Your task to perform on an android device: Open network settings Image 0: 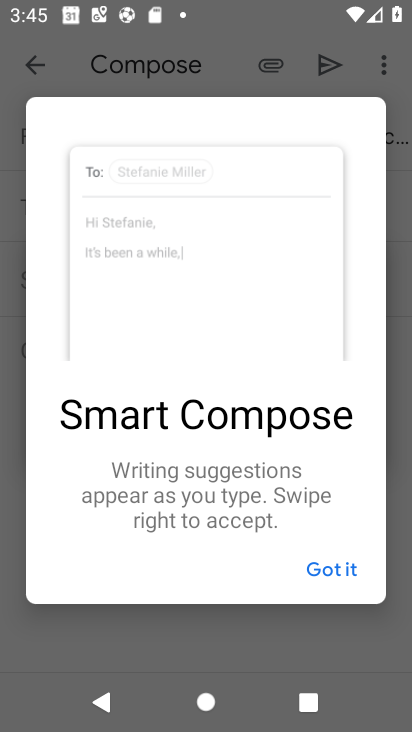
Step 0: press home button
Your task to perform on an android device: Open network settings Image 1: 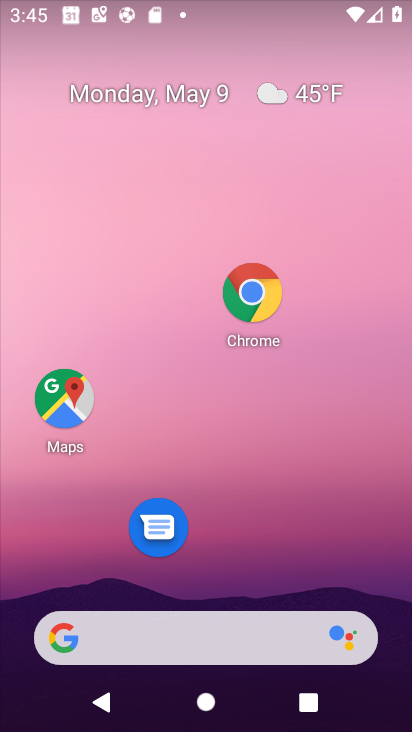
Step 1: click (297, 551)
Your task to perform on an android device: Open network settings Image 2: 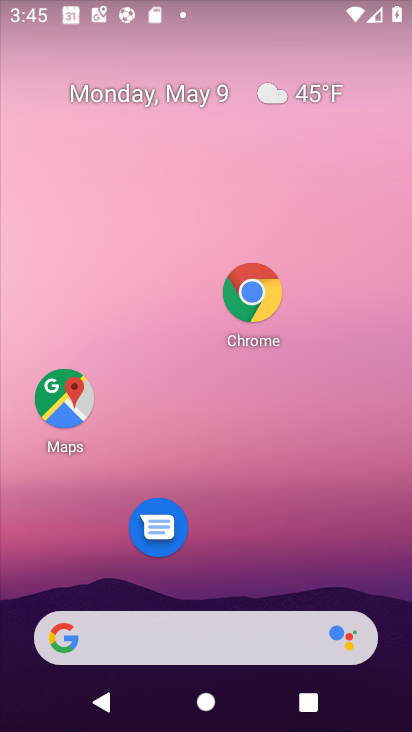
Step 2: drag from (297, 551) to (204, 162)
Your task to perform on an android device: Open network settings Image 3: 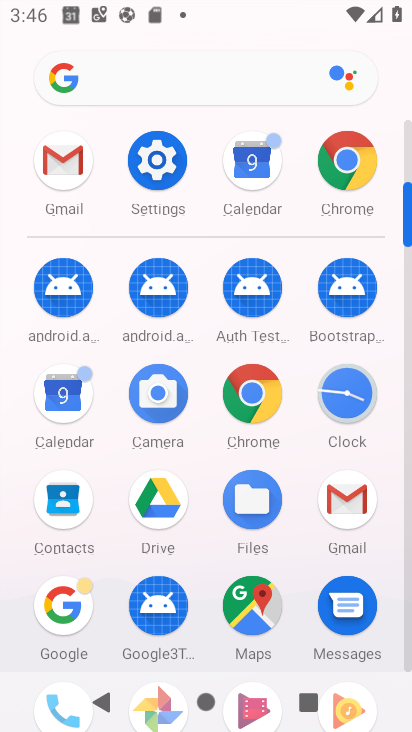
Step 3: click (164, 181)
Your task to perform on an android device: Open network settings Image 4: 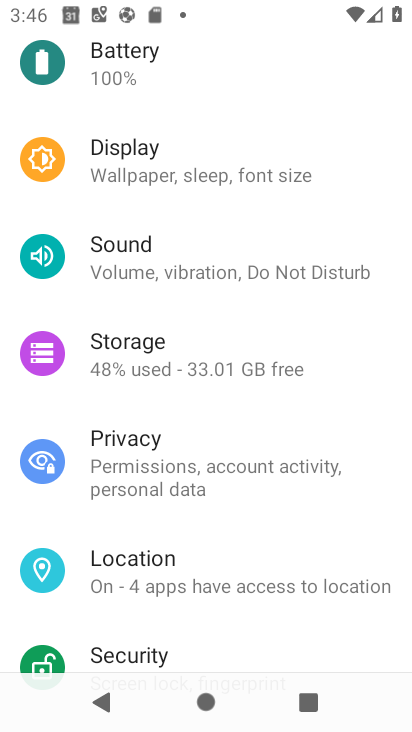
Step 4: drag from (164, 181) to (152, 487)
Your task to perform on an android device: Open network settings Image 5: 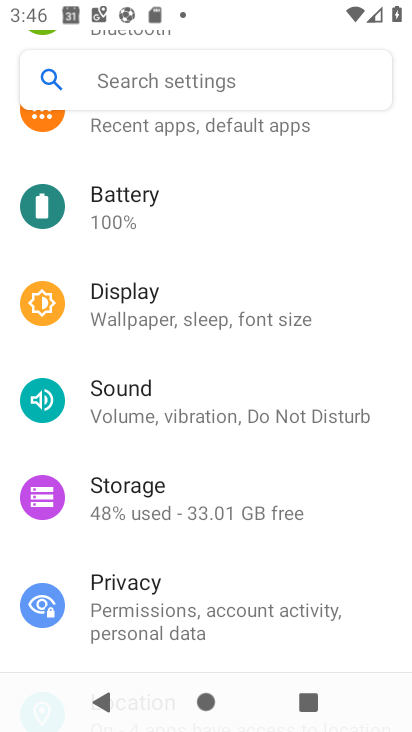
Step 5: drag from (196, 266) to (180, 534)
Your task to perform on an android device: Open network settings Image 6: 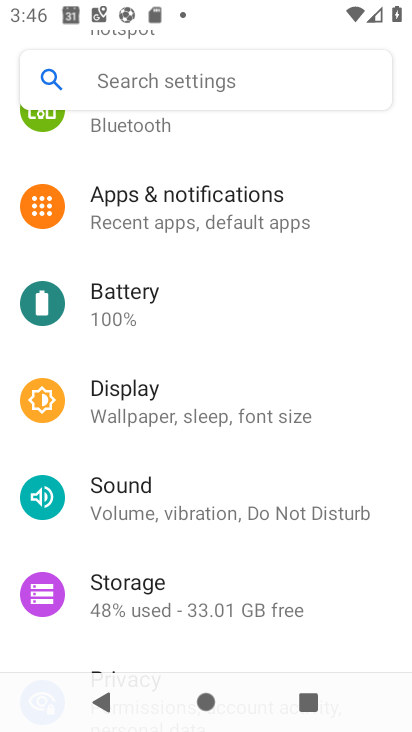
Step 6: drag from (236, 161) to (215, 392)
Your task to perform on an android device: Open network settings Image 7: 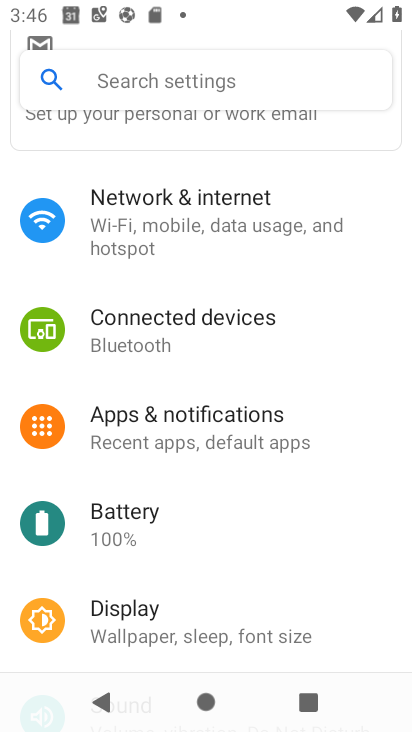
Step 7: click (278, 207)
Your task to perform on an android device: Open network settings Image 8: 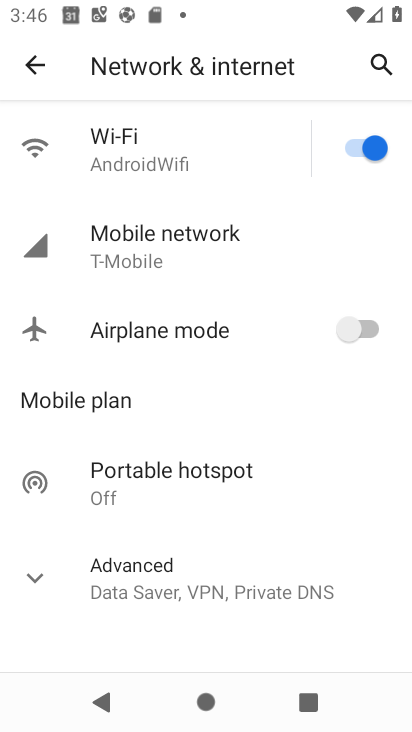
Step 8: click (232, 238)
Your task to perform on an android device: Open network settings Image 9: 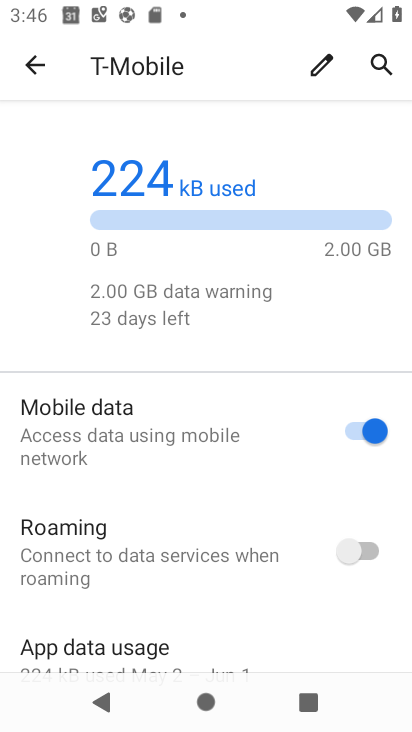
Step 9: task complete